Your task to perform on an android device: set the timer Image 0: 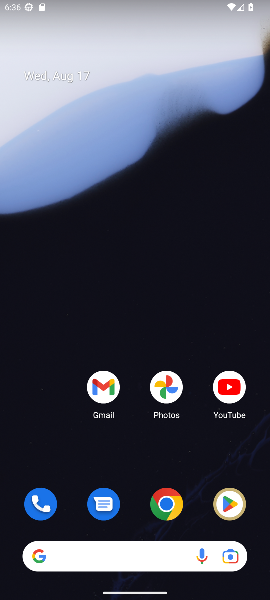
Step 0: drag from (125, 419) to (127, 83)
Your task to perform on an android device: set the timer Image 1: 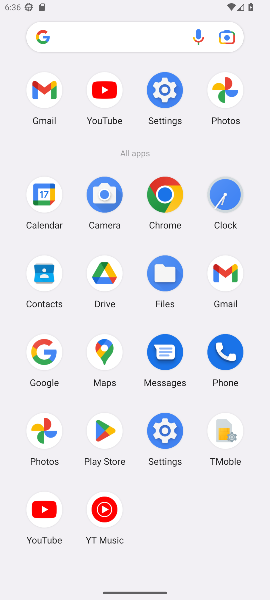
Step 1: click (225, 207)
Your task to perform on an android device: set the timer Image 2: 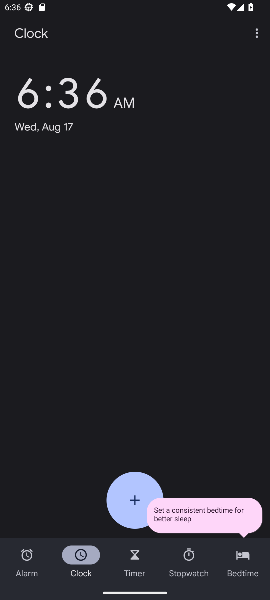
Step 2: click (143, 558)
Your task to perform on an android device: set the timer Image 3: 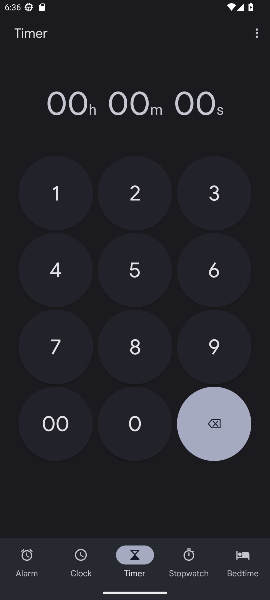
Step 3: click (122, 190)
Your task to perform on an android device: set the timer Image 4: 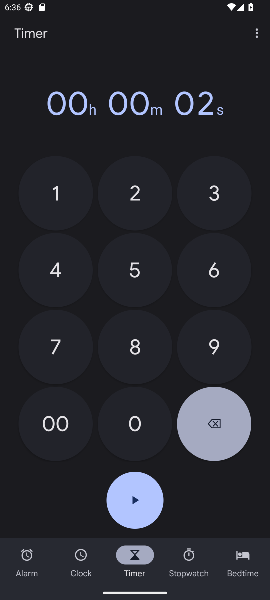
Step 4: click (148, 198)
Your task to perform on an android device: set the timer Image 5: 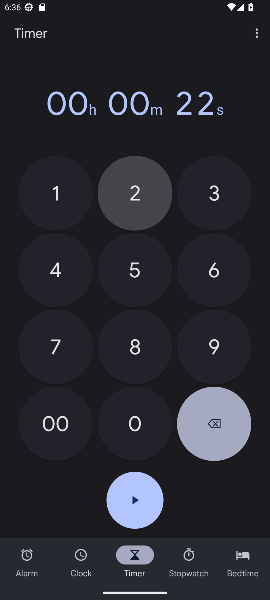
Step 5: click (148, 198)
Your task to perform on an android device: set the timer Image 6: 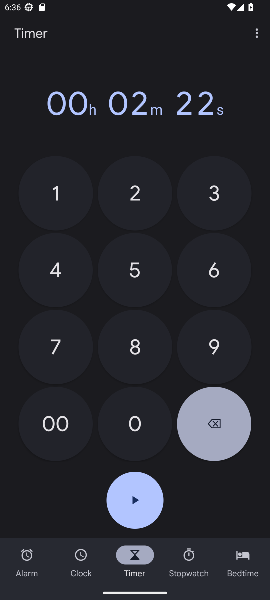
Step 6: click (136, 495)
Your task to perform on an android device: set the timer Image 7: 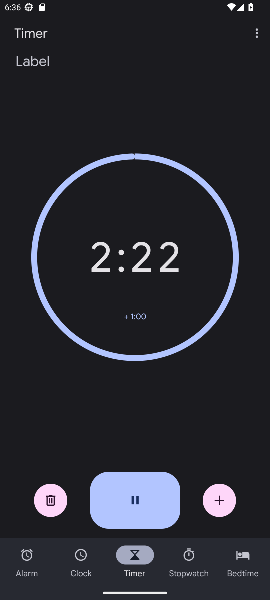
Step 7: task complete